Your task to perform on an android device: check out phone information Image 0: 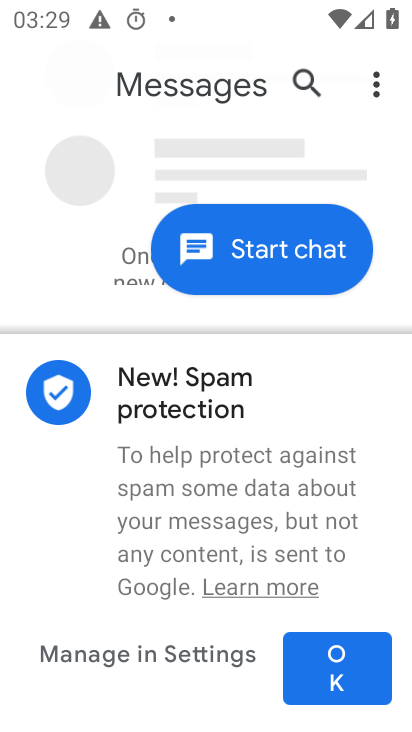
Step 0: press home button
Your task to perform on an android device: check out phone information Image 1: 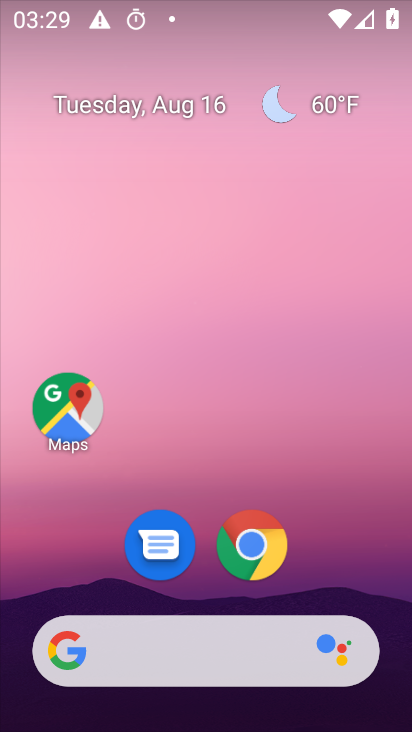
Step 1: drag from (166, 603) to (131, 321)
Your task to perform on an android device: check out phone information Image 2: 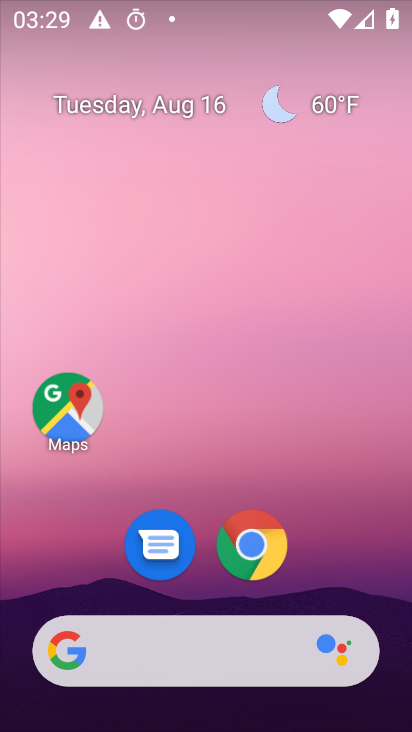
Step 2: drag from (209, 608) to (191, 271)
Your task to perform on an android device: check out phone information Image 3: 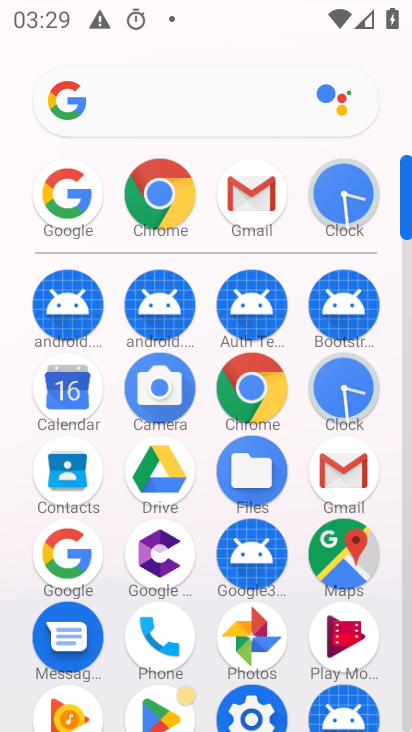
Step 3: click (156, 652)
Your task to perform on an android device: check out phone information Image 4: 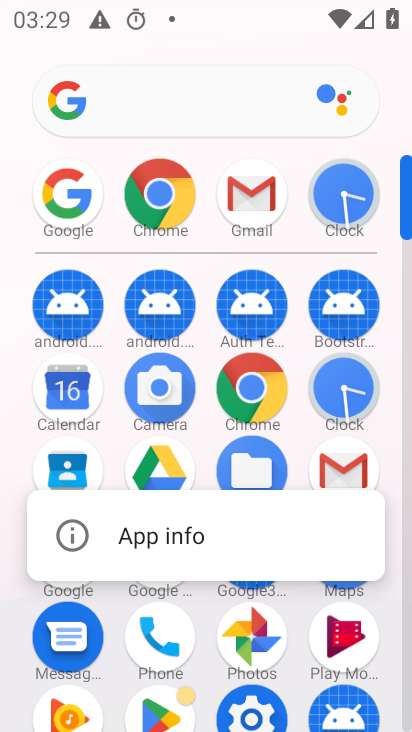
Step 4: click (161, 532)
Your task to perform on an android device: check out phone information Image 5: 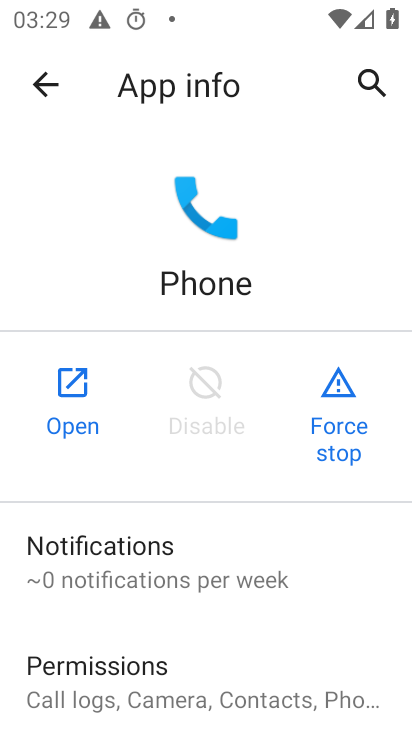
Step 5: drag from (164, 681) to (123, 313)
Your task to perform on an android device: check out phone information Image 6: 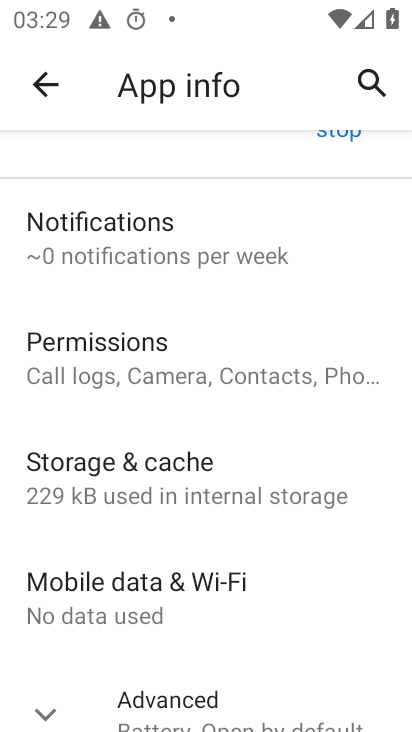
Step 6: drag from (92, 673) to (67, 422)
Your task to perform on an android device: check out phone information Image 7: 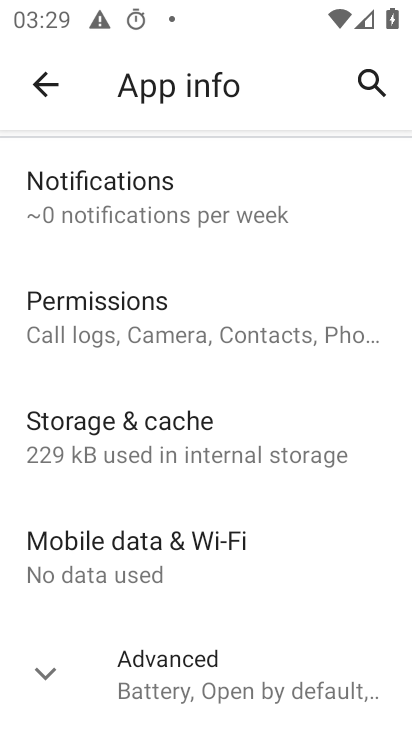
Step 7: click (77, 698)
Your task to perform on an android device: check out phone information Image 8: 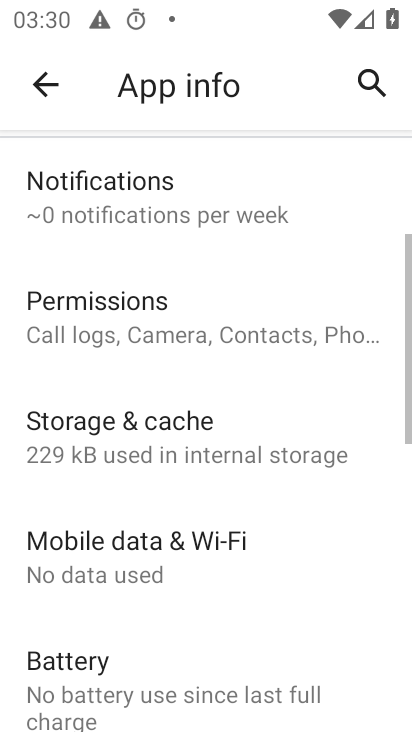
Step 8: task complete